Your task to perform on an android device: change the clock style Image 0: 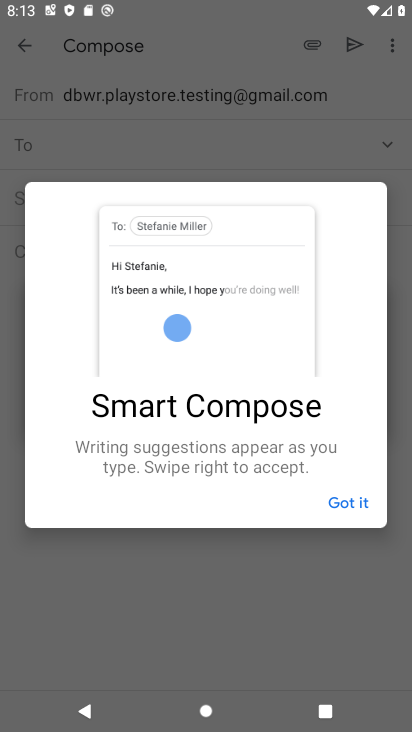
Step 0: press home button
Your task to perform on an android device: change the clock style Image 1: 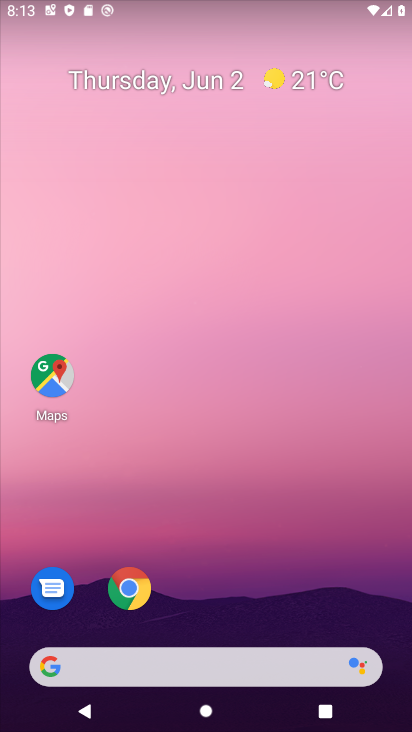
Step 1: drag from (199, 662) to (205, 103)
Your task to perform on an android device: change the clock style Image 2: 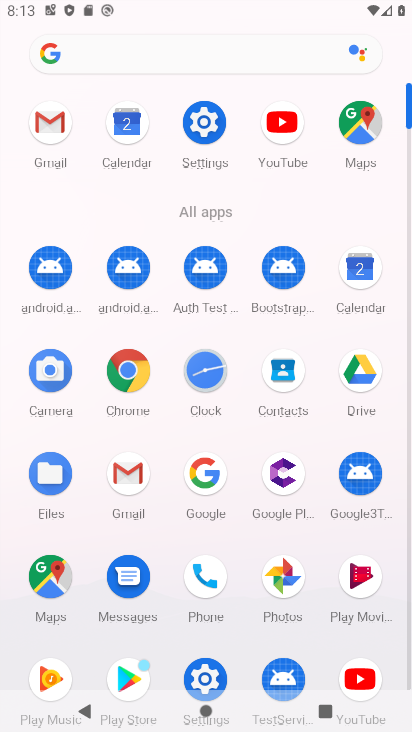
Step 2: click (205, 368)
Your task to perform on an android device: change the clock style Image 3: 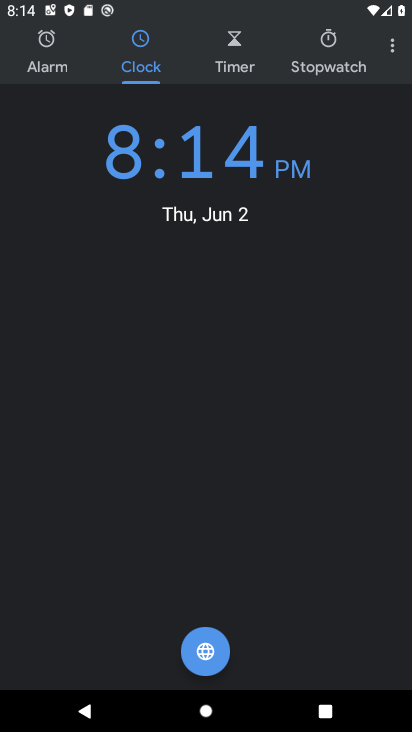
Step 3: click (395, 41)
Your task to perform on an android device: change the clock style Image 4: 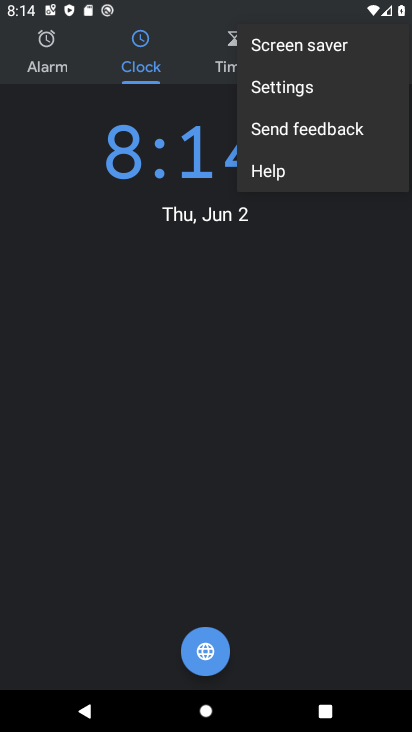
Step 4: click (336, 86)
Your task to perform on an android device: change the clock style Image 5: 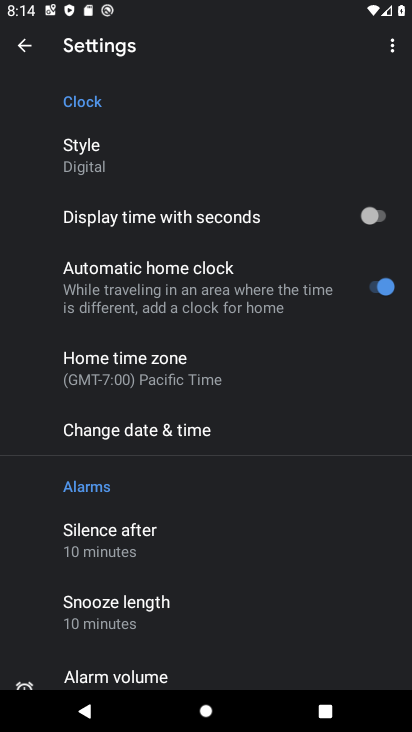
Step 5: click (139, 163)
Your task to perform on an android device: change the clock style Image 6: 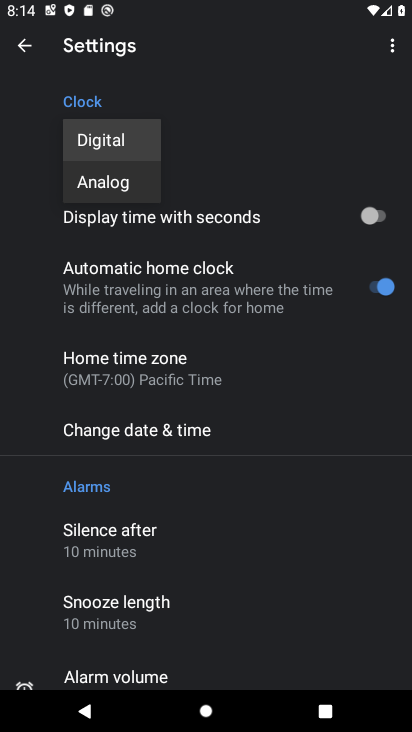
Step 6: click (135, 196)
Your task to perform on an android device: change the clock style Image 7: 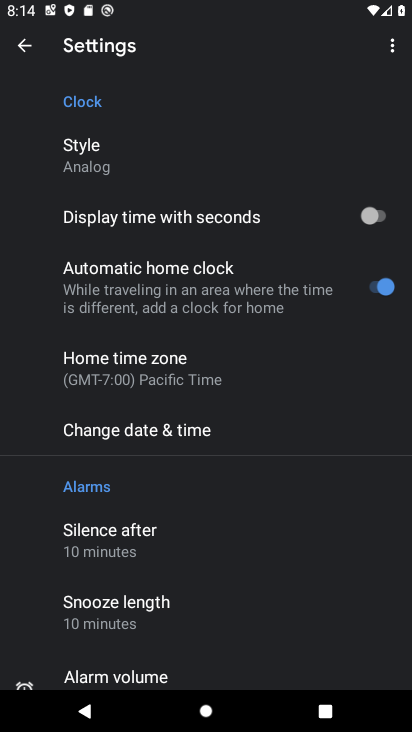
Step 7: task complete